Your task to perform on an android device: remove spam from my inbox in the gmail app Image 0: 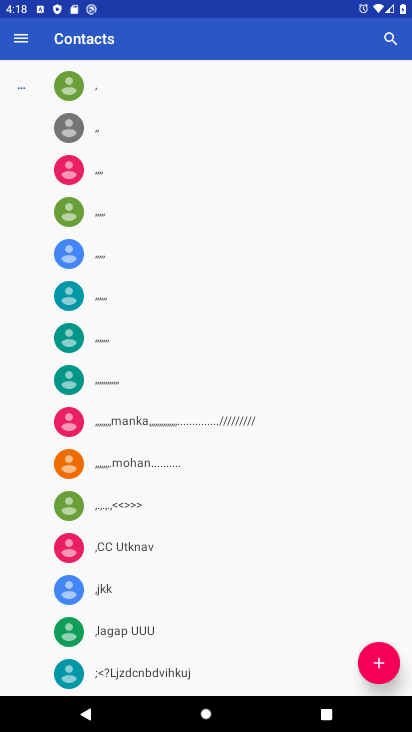
Step 0: press home button
Your task to perform on an android device: remove spam from my inbox in the gmail app Image 1: 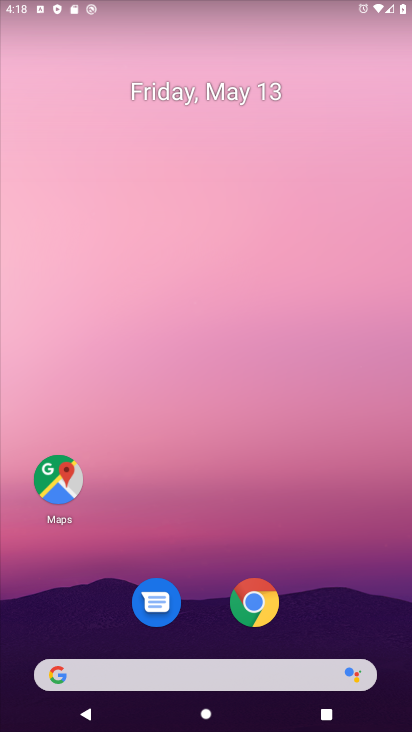
Step 1: drag from (216, 666) to (241, 316)
Your task to perform on an android device: remove spam from my inbox in the gmail app Image 2: 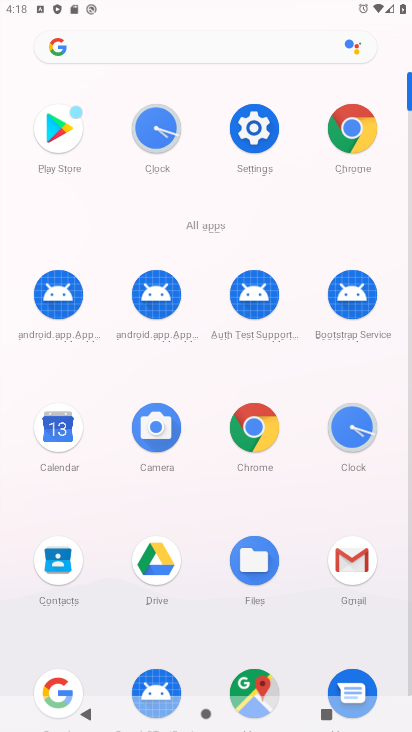
Step 2: click (369, 557)
Your task to perform on an android device: remove spam from my inbox in the gmail app Image 3: 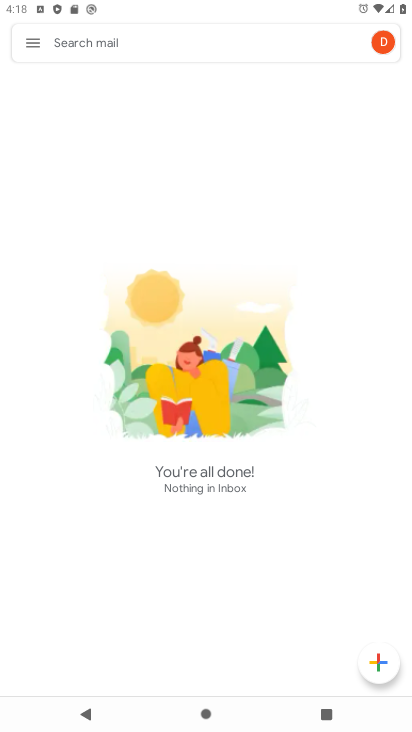
Step 3: click (36, 47)
Your task to perform on an android device: remove spam from my inbox in the gmail app Image 4: 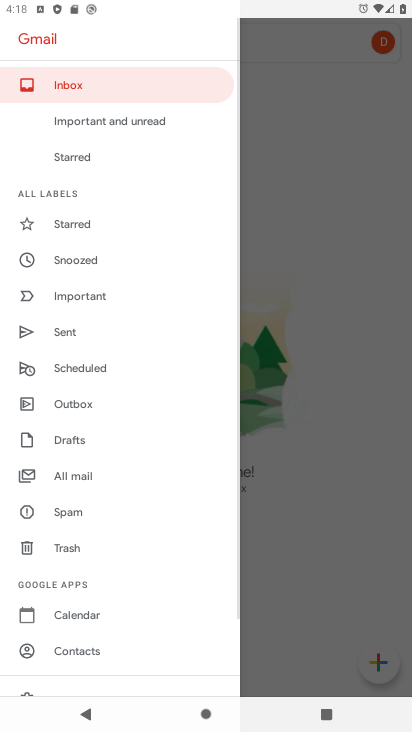
Step 4: click (315, 558)
Your task to perform on an android device: remove spam from my inbox in the gmail app Image 5: 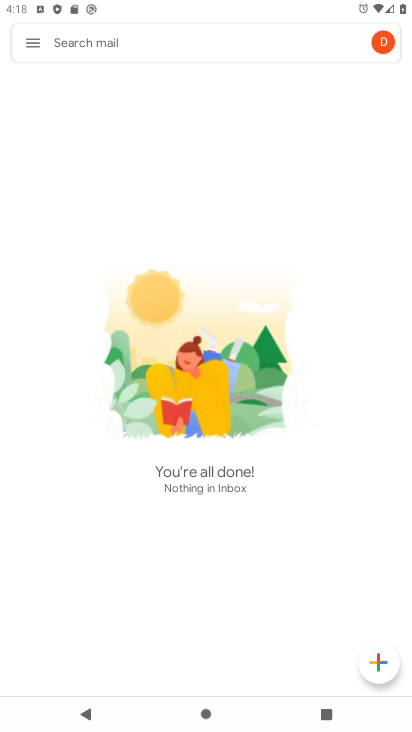
Step 5: task complete